Your task to perform on an android device: turn notification dots off Image 0: 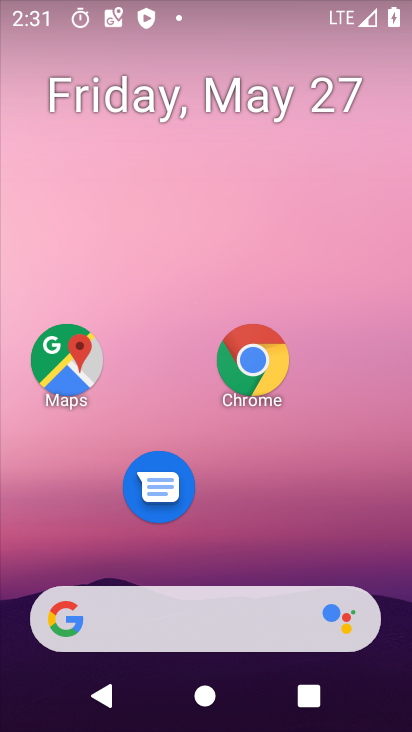
Step 0: drag from (283, 498) to (282, 85)
Your task to perform on an android device: turn notification dots off Image 1: 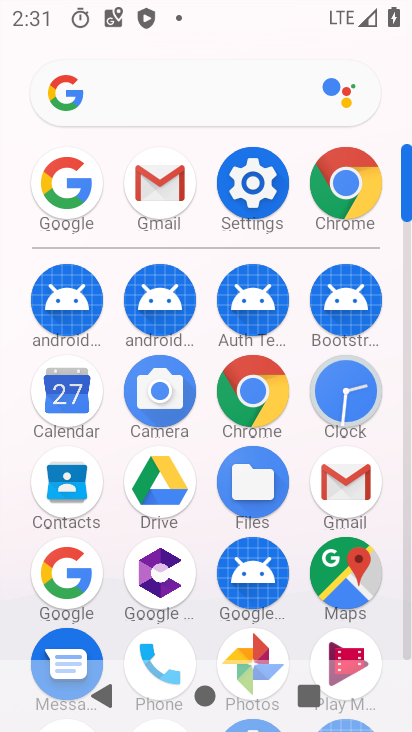
Step 1: click (252, 185)
Your task to perform on an android device: turn notification dots off Image 2: 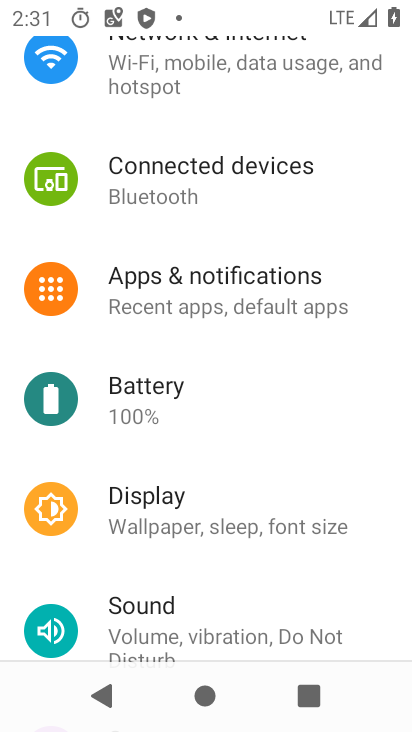
Step 2: click (211, 300)
Your task to perform on an android device: turn notification dots off Image 3: 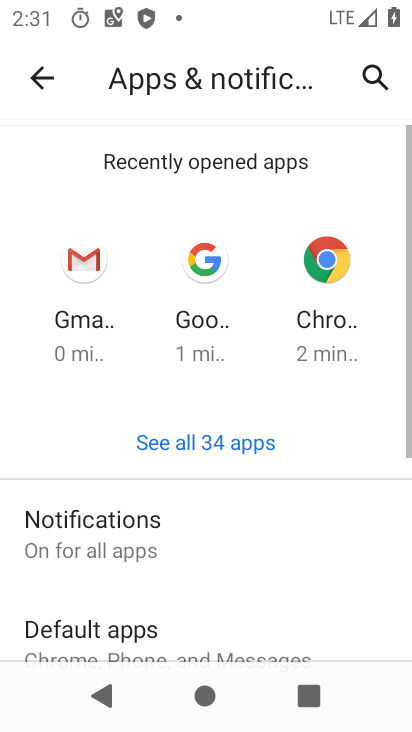
Step 3: click (136, 510)
Your task to perform on an android device: turn notification dots off Image 4: 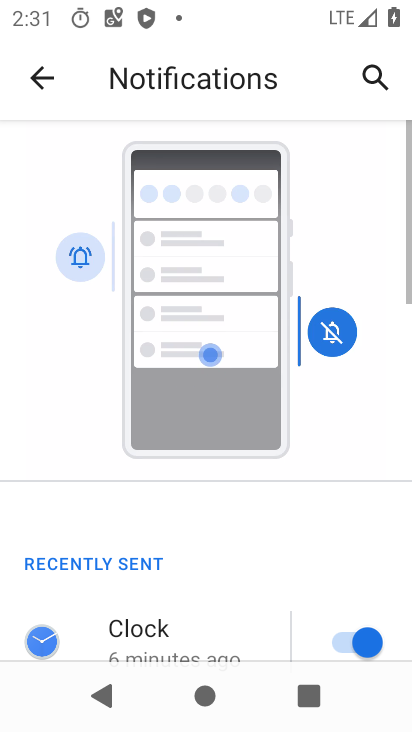
Step 4: drag from (264, 593) to (269, 64)
Your task to perform on an android device: turn notification dots off Image 5: 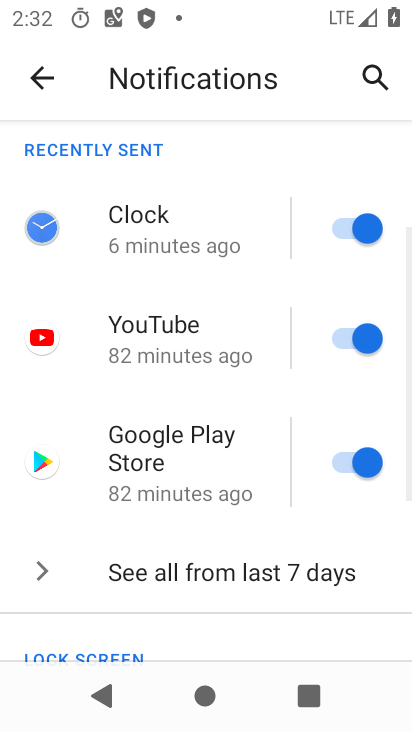
Step 5: drag from (277, 551) to (274, 91)
Your task to perform on an android device: turn notification dots off Image 6: 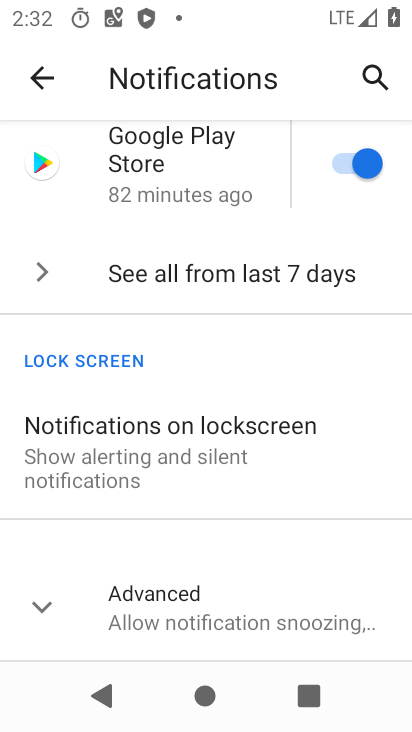
Step 6: click (146, 597)
Your task to perform on an android device: turn notification dots off Image 7: 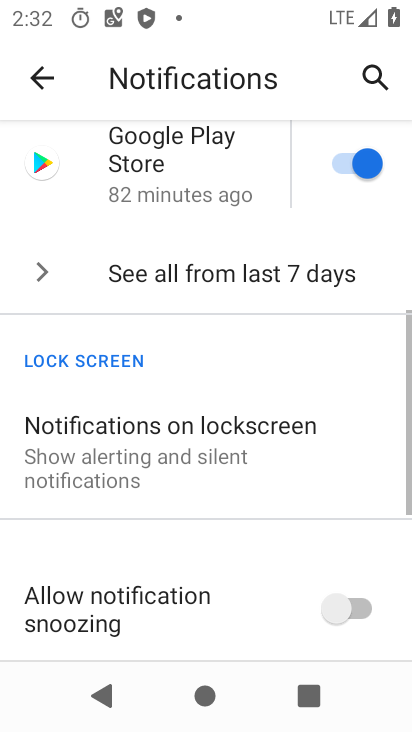
Step 7: task complete